Your task to perform on an android device: turn off location history Image 0: 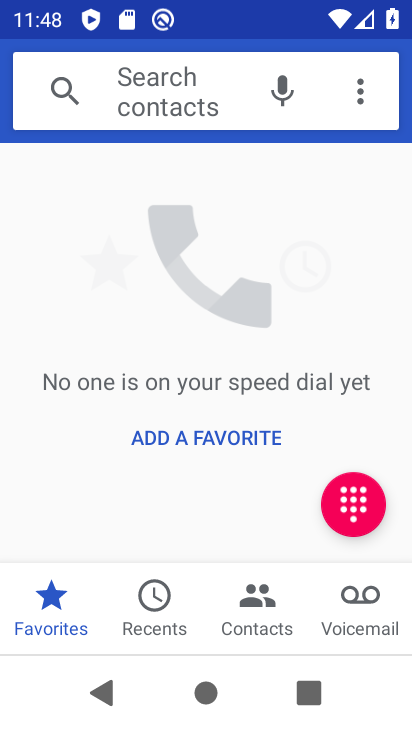
Step 0: press home button
Your task to perform on an android device: turn off location history Image 1: 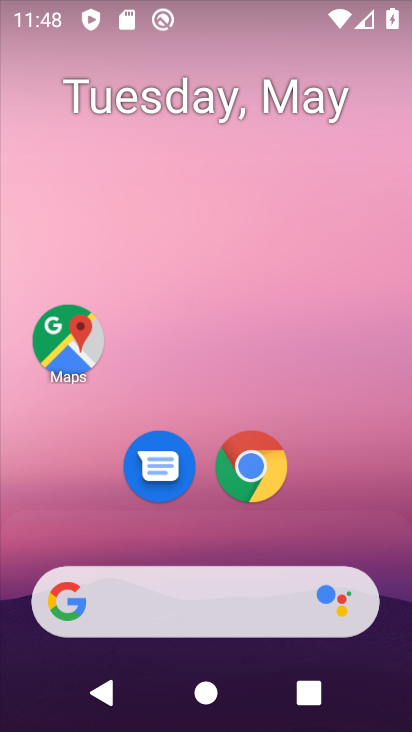
Step 1: drag from (212, 403) to (212, 35)
Your task to perform on an android device: turn off location history Image 2: 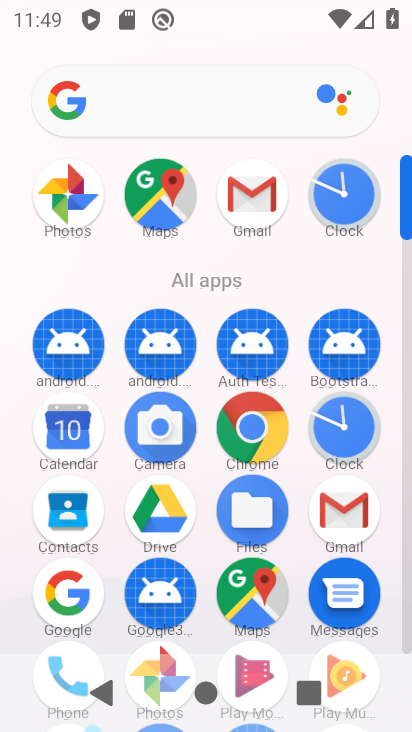
Step 2: drag from (205, 541) to (197, 124)
Your task to perform on an android device: turn off location history Image 3: 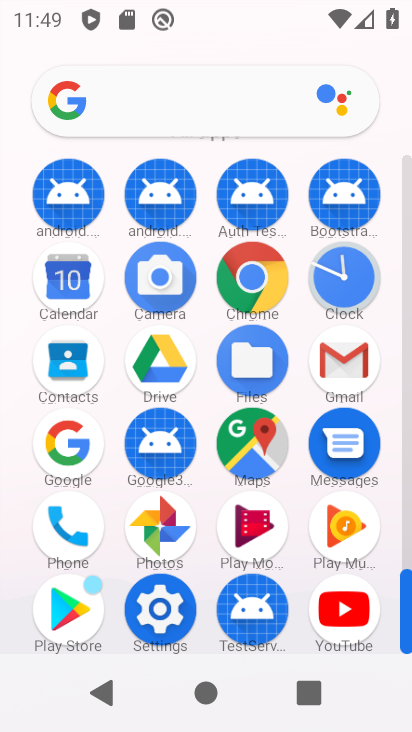
Step 3: click (158, 604)
Your task to perform on an android device: turn off location history Image 4: 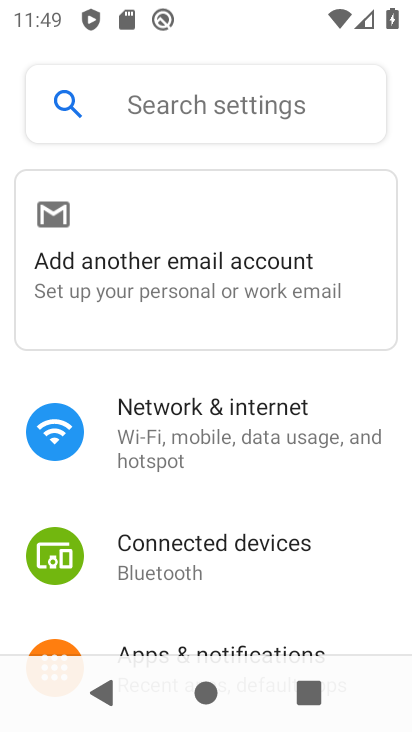
Step 4: drag from (188, 629) to (191, 166)
Your task to perform on an android device: turn off location history Image 5: 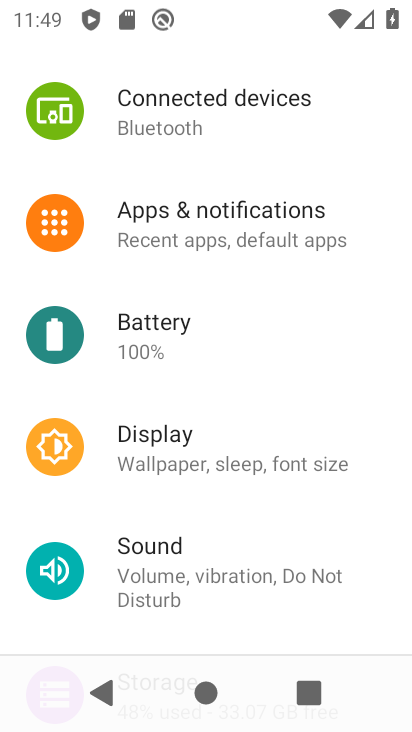
Step 5: drag from (194, 603) to (194, 148)
Your task to perform on an android device: turn off location history Image 6: 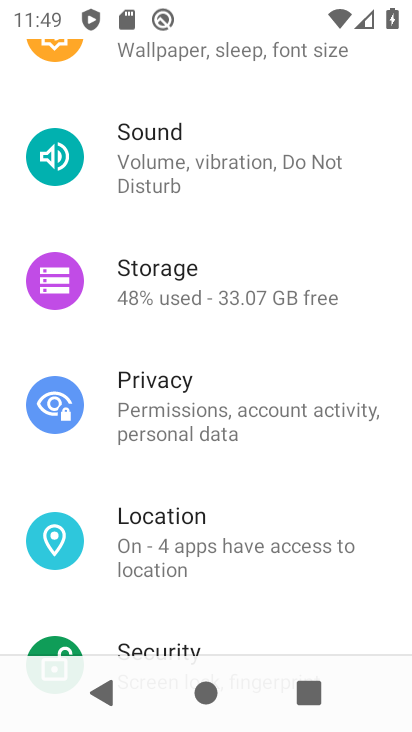
Step 6: click (223, 518)
Your task to perform on an android device: turn off location history Image 7: 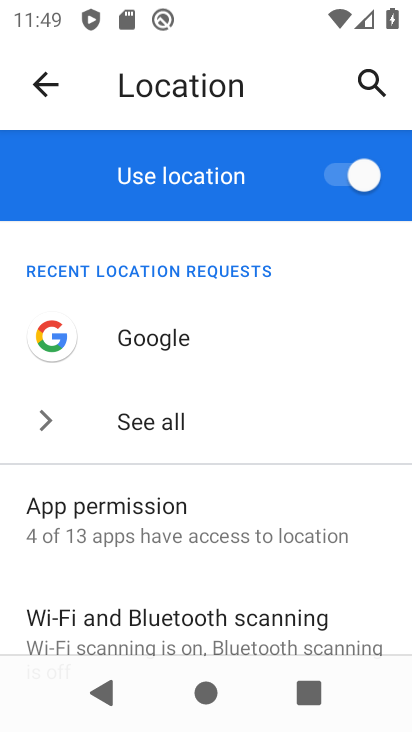
Step 7: drag from (207, 587) to (195, 179)
Your task to perform on an android device: turn off location history Image 8: 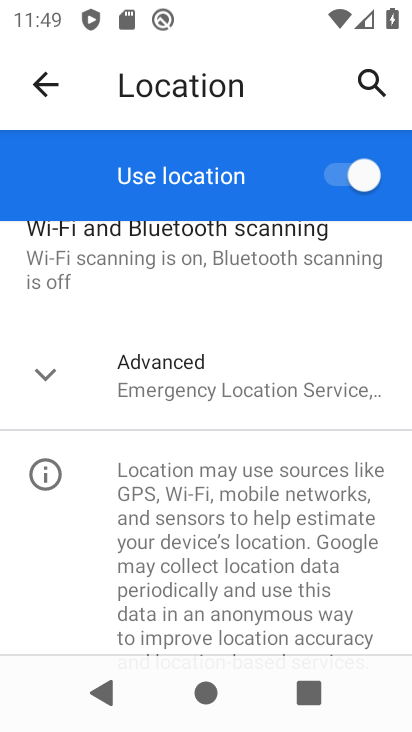
Step 8: click (41, 366)
Your task to perform on an android device: turn off location history Image 9: 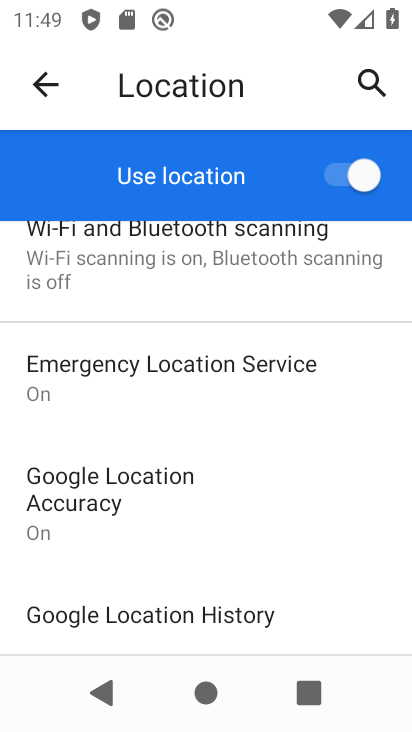
Step 9: click (284, 613)
Your task to perform on an android device: turn off location history Image 10: 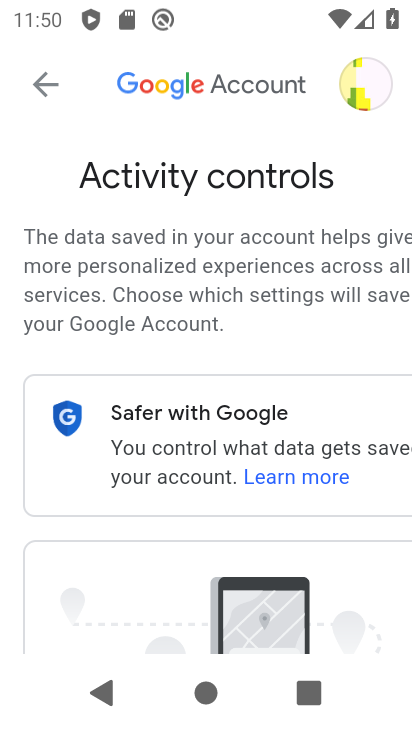
Step 10: task complete